Your task to perform on an android device: turn off location Image 0: 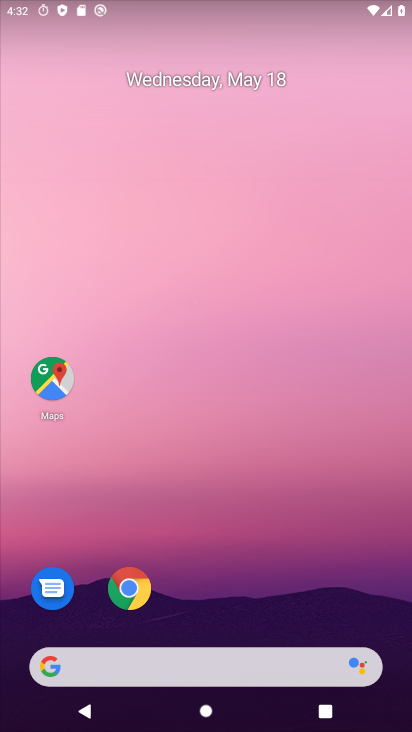
Step 0: drag from (247, 601) to (195, 91)
Your task to perform on an android device: turn off location Image 1: 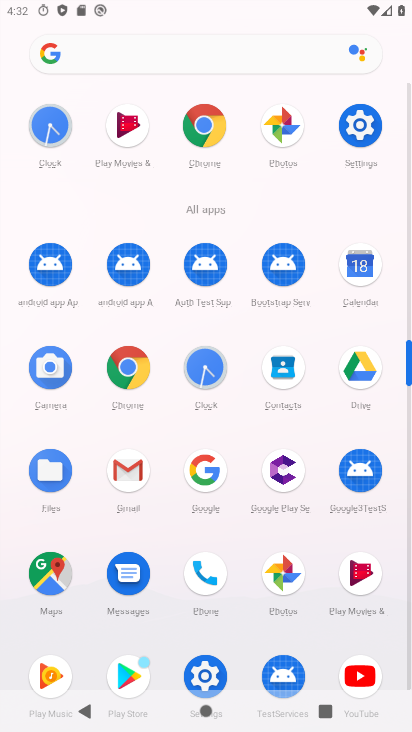
Step 1: click (364, 120)
Your task to perform on an android device: turn off location Image 2: 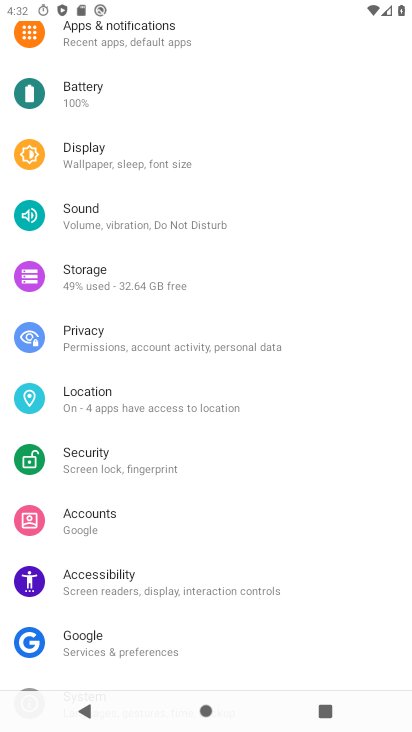
Step 2: click (119, 402)
Your task to perform on an android device: turn off location Image 3: 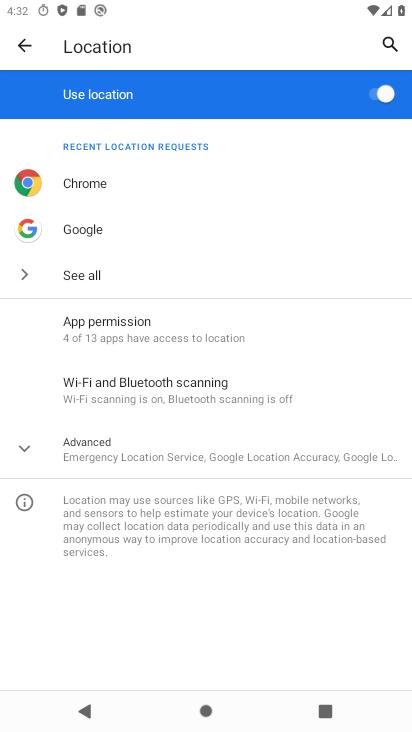
Step 3: click (367, 88)
Your task to perform on an android device: turn off location Image 4: 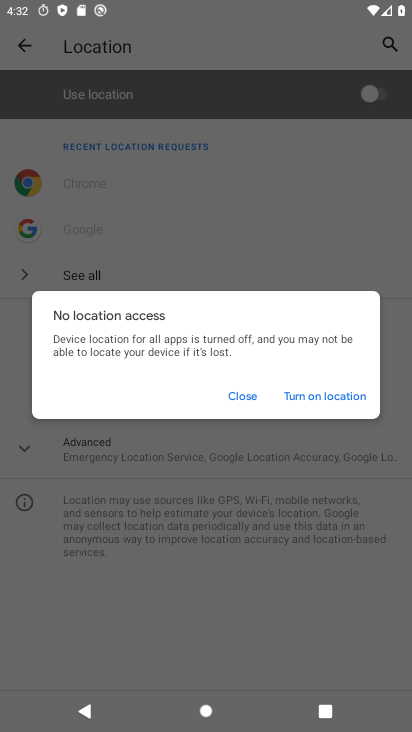
Step 4: click (239, 392)
Your task to perform on an android device: turn off location Image 5: 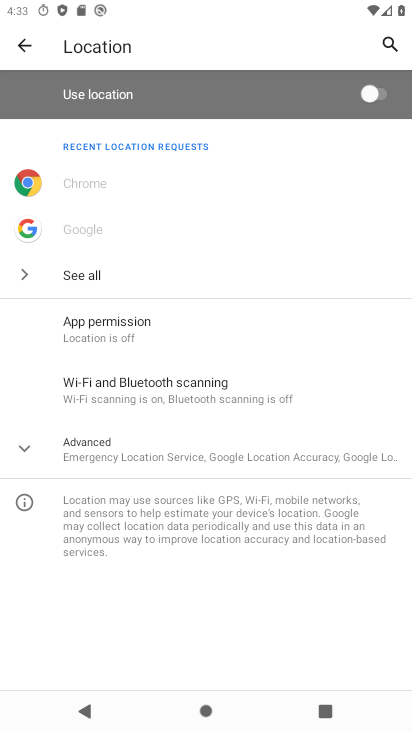
Step 5: task complete